Your task to perform on an android device: open a bookmark in the chrome app Image 0: 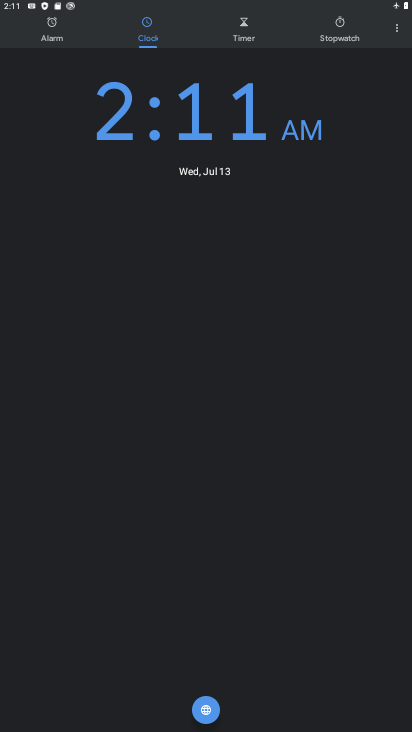
Step 0: press home button
Your task to perform on an android device: open a bookmark in the chrome app Image 1: 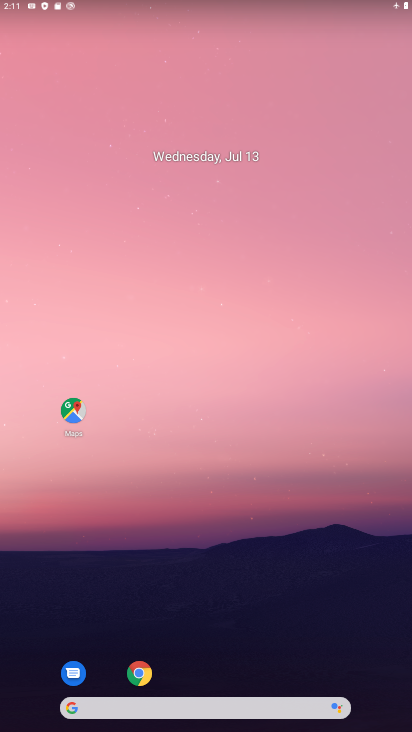
Step 1: click (141, 672)
Your task to perform on an android device: open a bookmark in the chrome app Image 2: 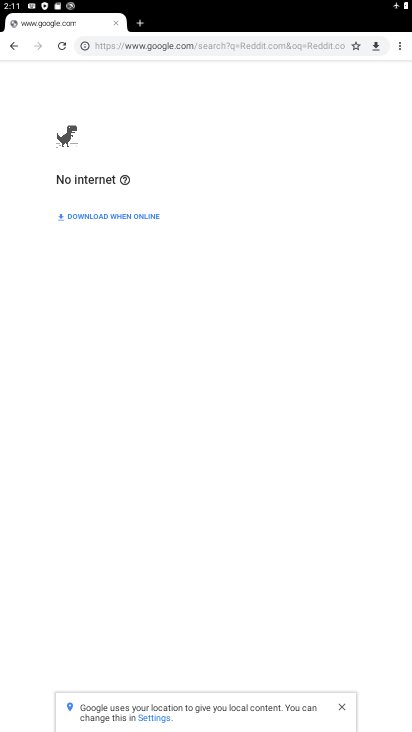
Step 2: click (402, 47)
Your task to perform on an android device: open a bookmark in the chrome app Image 3: 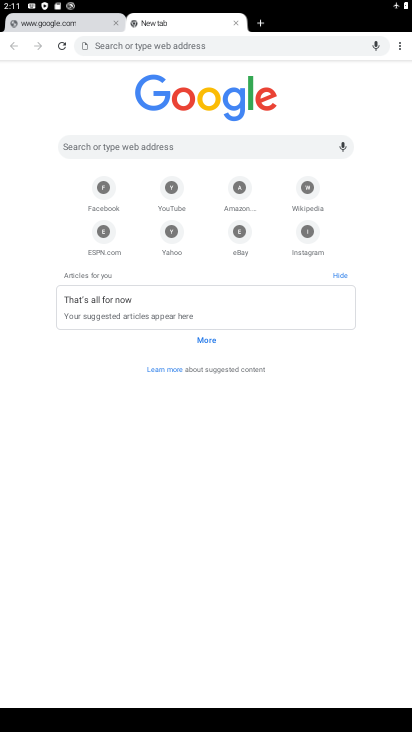
Step 3: click (402, 47)
Your task to perform on an android device: open a bookmark in the chrome app Image 4: 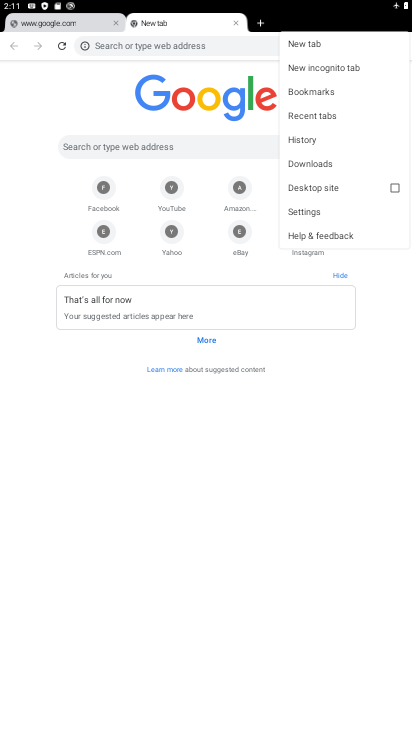
Step 4: click (298, 89)
Your task to perform on an android device: open a bookmark in the chrome app Image 5: 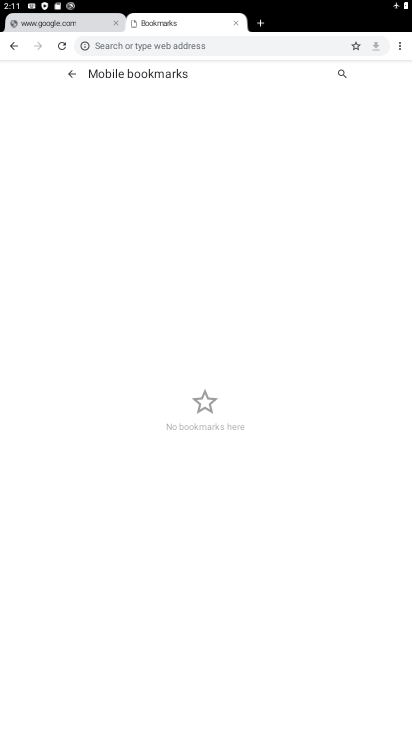
Step 5: task complete